Your task to perform on an android device: What is the news today? Image 0: 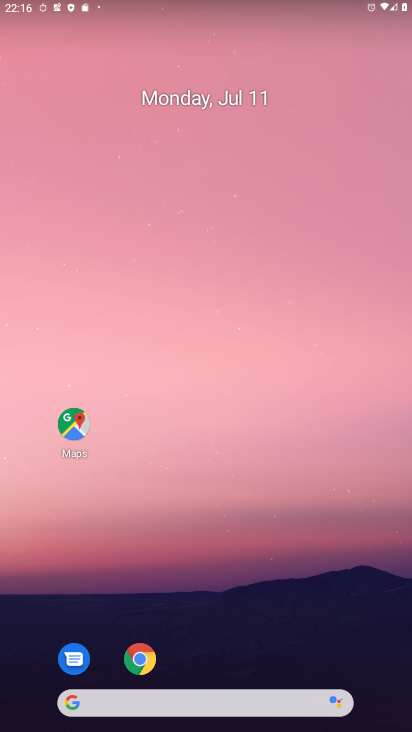
Step 0: drag from (213, 679) to (208, 289)
Your task to perform on an android device: What is the news today? Image 1: 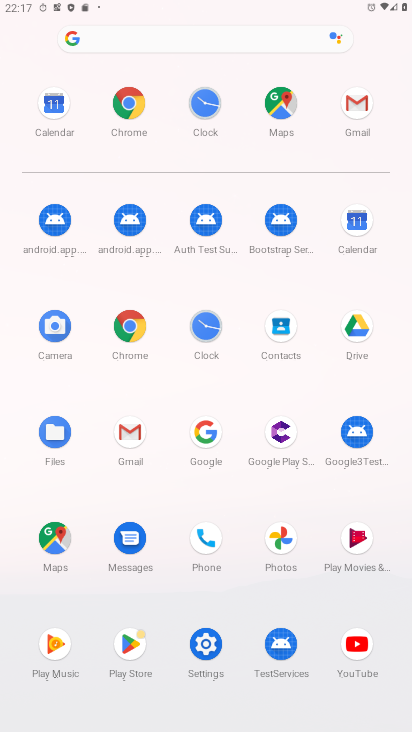
Step 1: click (216, 40)
Your task to perform on an android device: What is the news today? Image 2: 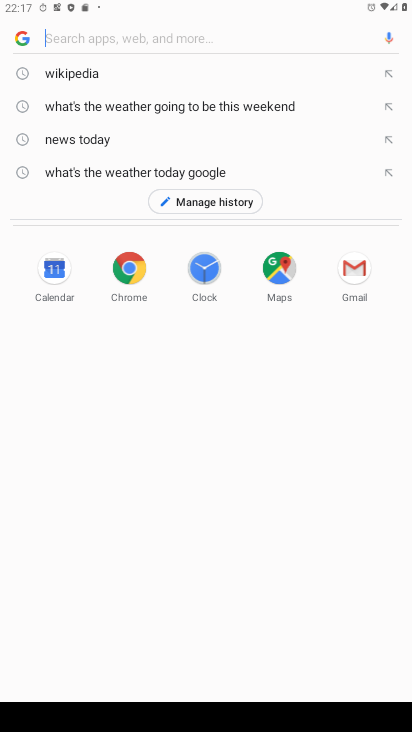
Step 2: type "news today"
Your task to perform on an android device: What is the news today? Image 3: 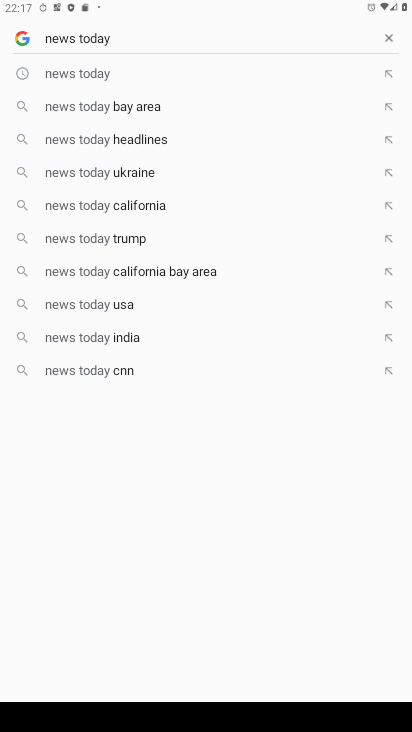
Step 3: click (89, 77)
Your task to perform on an android device: What is the news today? Image 4: 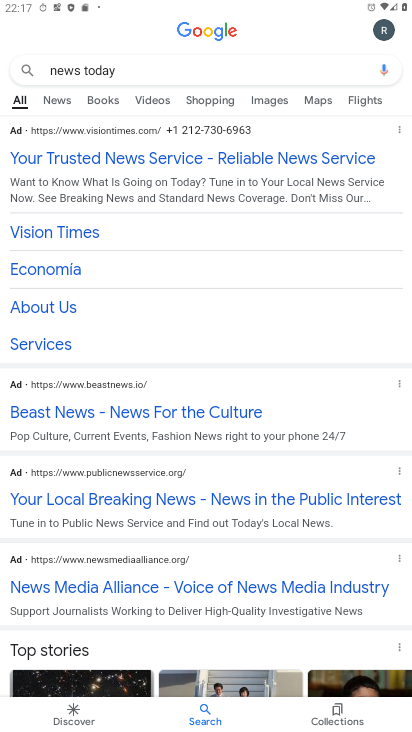
Step 4: click (168, 157)
Your task to perform on an android device: What is the news today? Image 5: 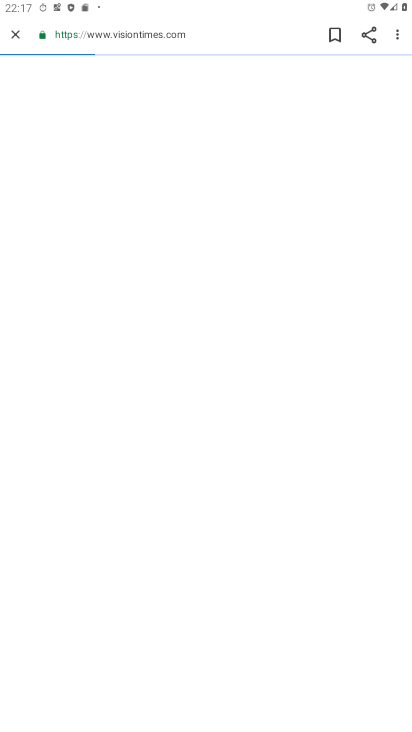
Step 5: task complete